Your task to perform on an android device: set the timer Image 0: 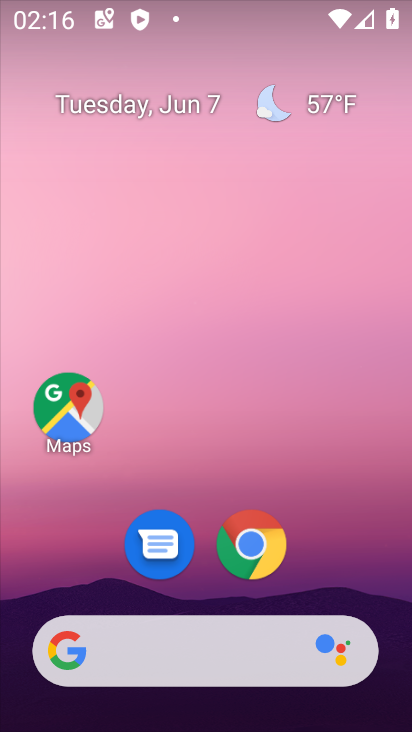
Step 0: drag from (310, 453) to (310, 186)
Your task to perform on an android device: set the timer Image 1: 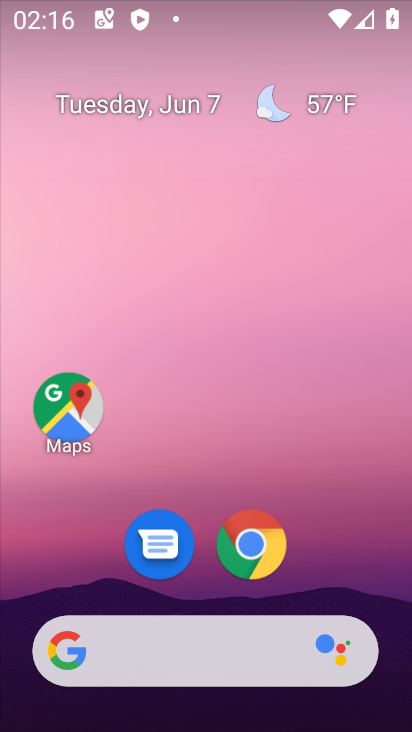
Step 1: drag from (216, 589) to (207, 464)
Your task to perform on an android device: set the timer Image 2: 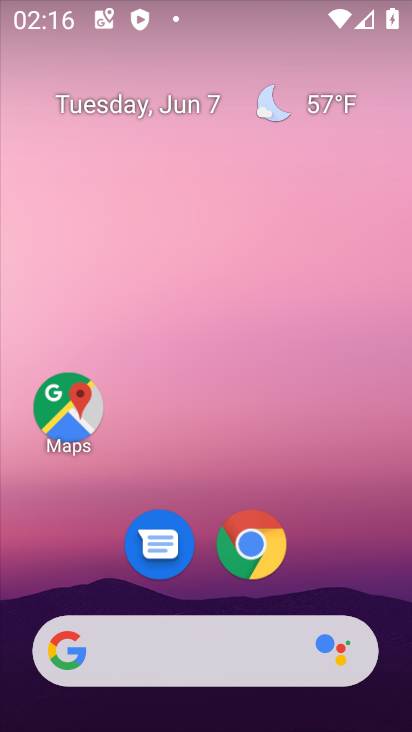
Step 2: drag from (199, 520) to (248, 184)
Your task to perform on an android device: set the timer Image 3: 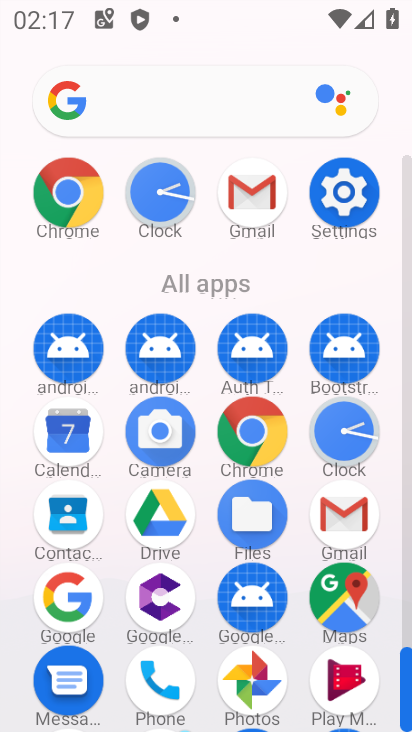
Step 3: click (148, 181)
Your task to perform on an android device: set the timer Image 4: 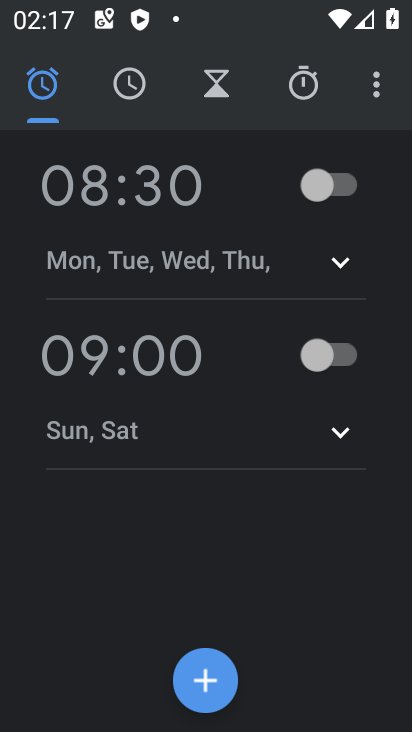
Step 4: click (213, 87)
Your task to perform on an android device: set the timer Image 5: 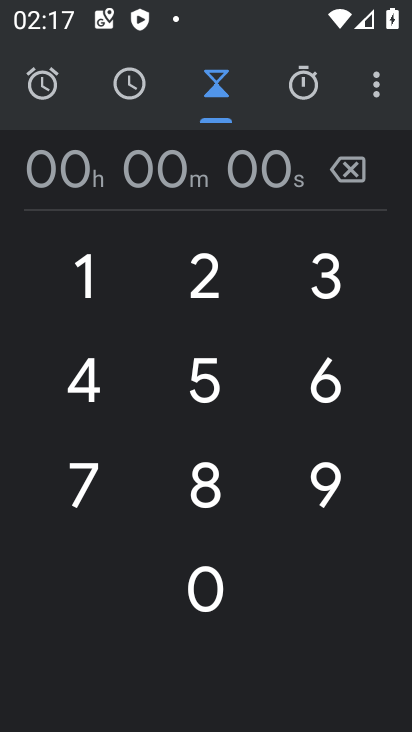
Step 5: click (155, 185)
Your task to perform on an android device: set the timer Image 6: 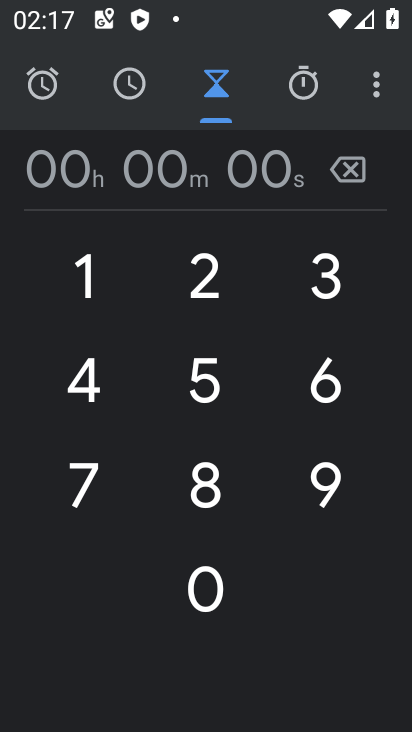
Step 6: type "45678"
Your task to perform on an android device: set the timer Image 7: 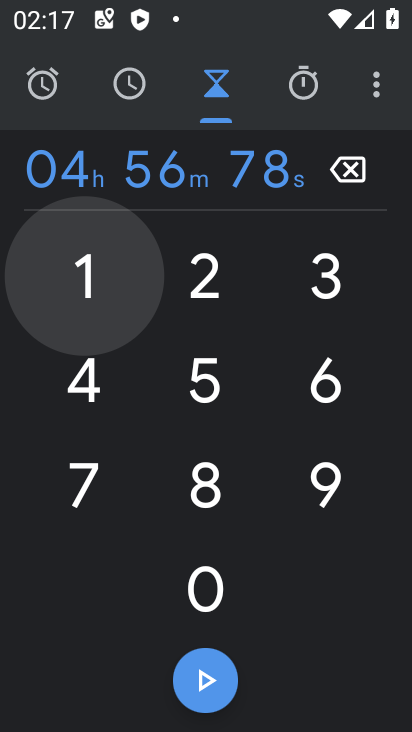
Step 7: task complete